Your task to perform on an android device: Show me productivity apps on the Play Store Image 0: 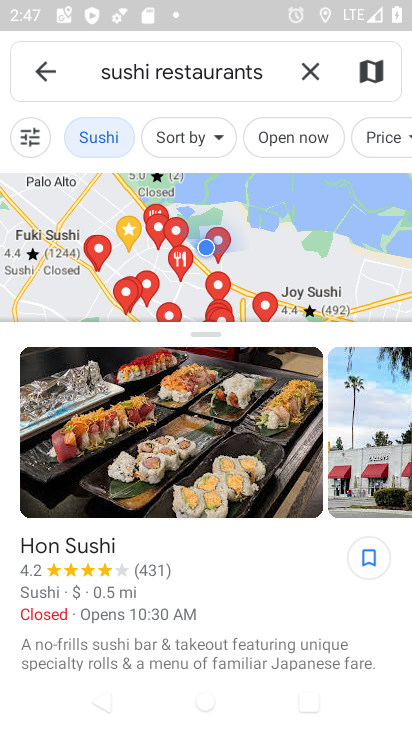
Step 0: press home button
Your task to perform on an android device: Show me productivity apps on the Play Store Image 1: 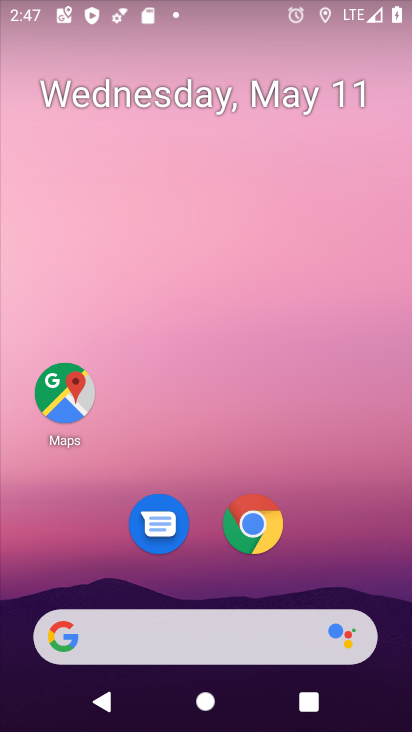
Step 1: drag from (336, 558) to (284, 52)
Your task to perform on an android device: Show me productivity apps on the Play Store Image 2: 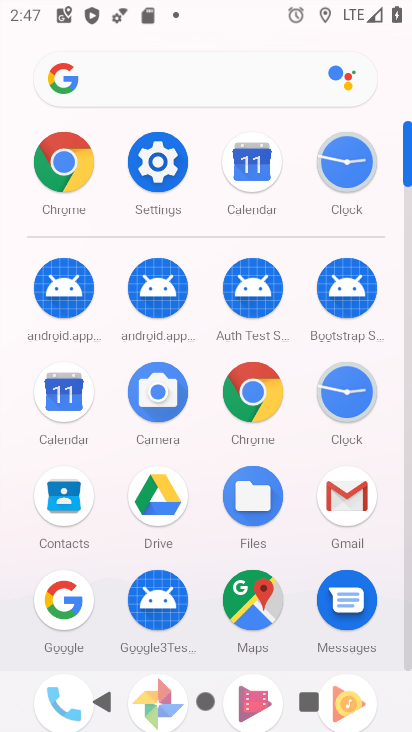
Step 2: drag from (196, 487) to (192, 87)
Your task to perform on an android device: Show me productivity apps on the Play Store Image 3: 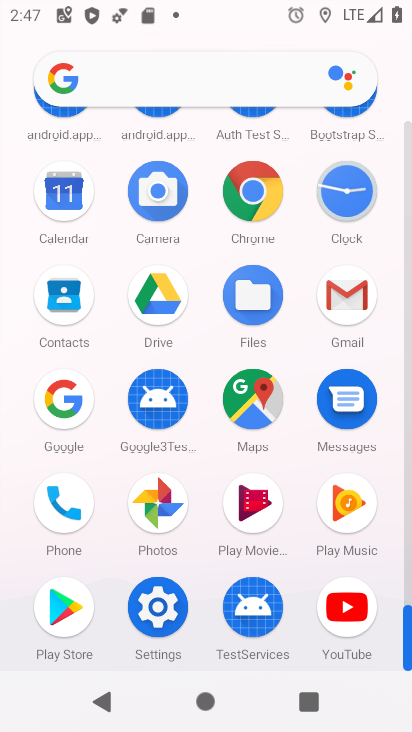
Step 3: click (66, 587)
Your task to perform on an android device: Show me productivity apps on the Play Store Image 4: 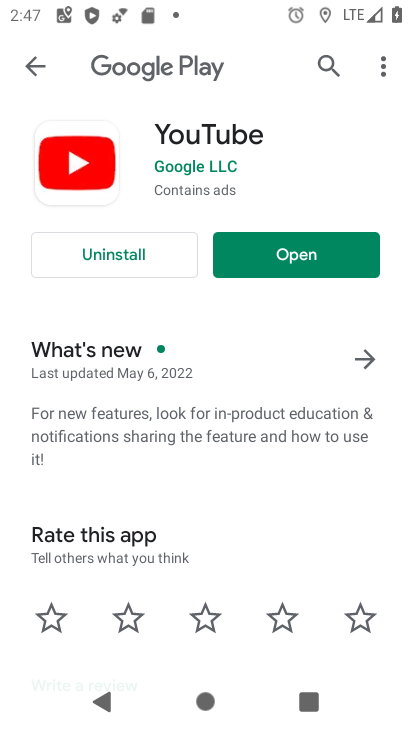
Step 4: click (46, 68)
Your task to perform on an android device: Show me productivity apps on the Play Store Image 5: 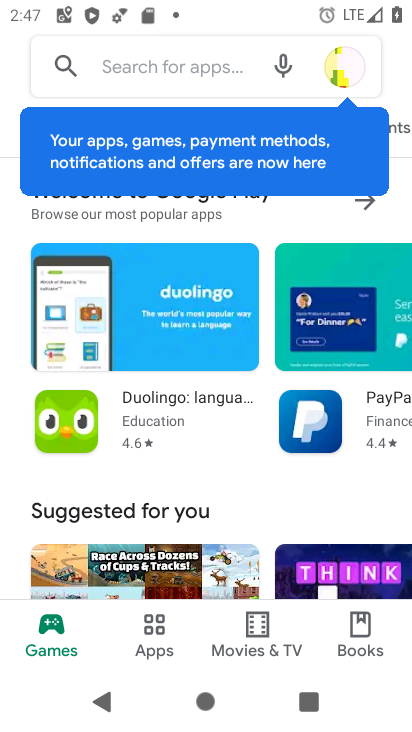
Step 5: click (166, 634)
Your task to perform on an android device: Show me productivity apps on the Play Store Image 6: 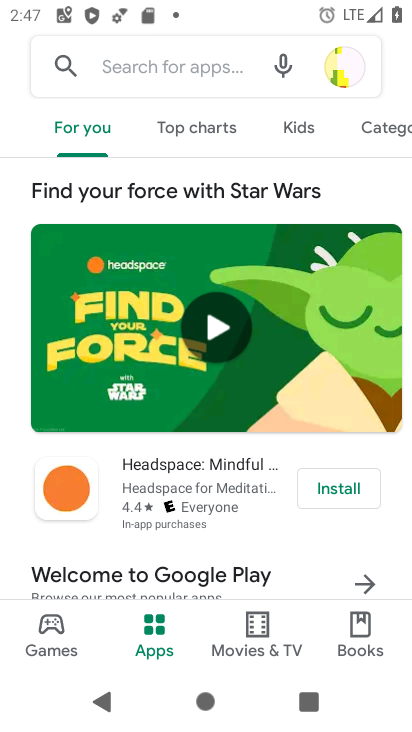
Step 6: click (381, 117)
Your task to perform on an android device: Show me productivity apps on the Play Store Image 7: 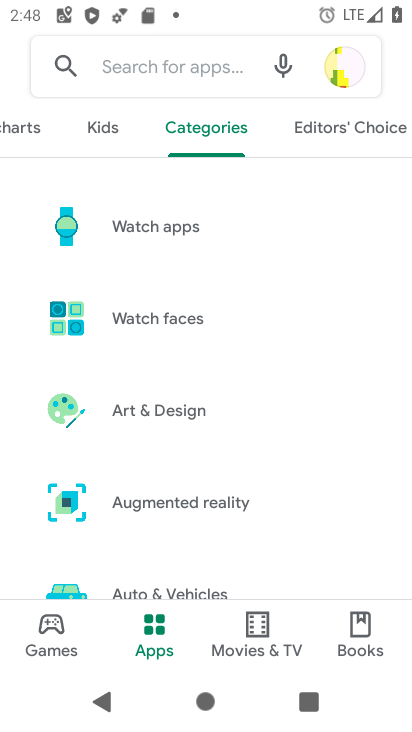
Step 7: drag from (214, 527) to (232, 0)
Your task to perform on an android device: Show me productivity apps on the Play Store Image 8: 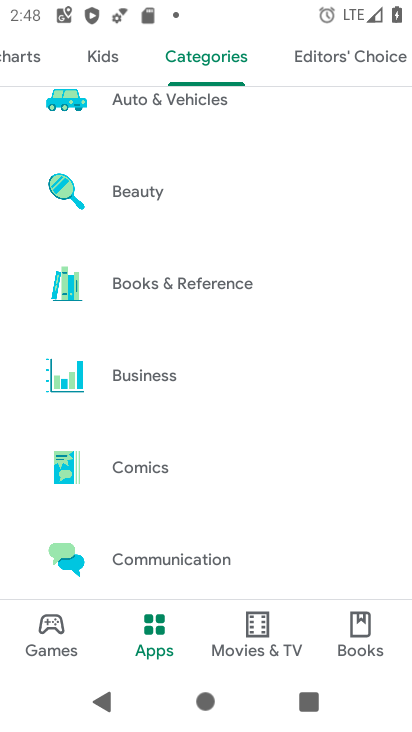
Step 8: drag from (264, 566) to (302, 1)
Your task to perform on an android device: Show me productivity apps on the Play Store Image 9: 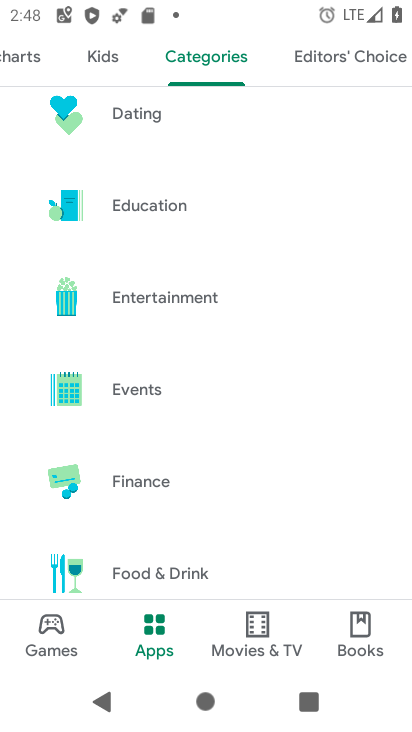
Step 9: drag from (244, 573) to (267, 0)
Your task to perform on an android device: Show me productivity apps on the Play Store Image 10: 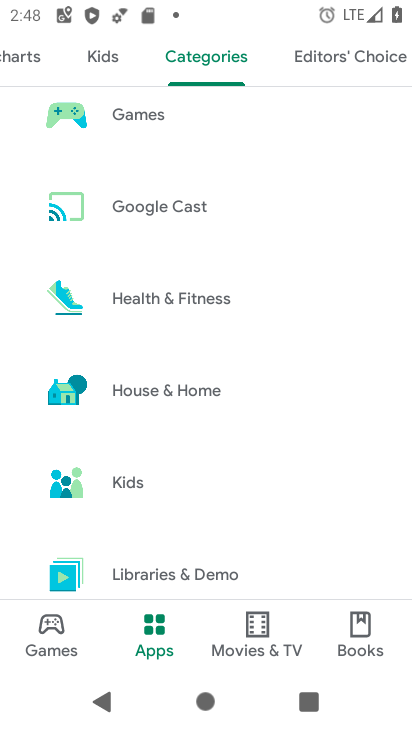
Step 10: drag from (263, 566) to (261, 20)
Your task to perform on an android device: Show me productivity apps on the Play Store Image 11: 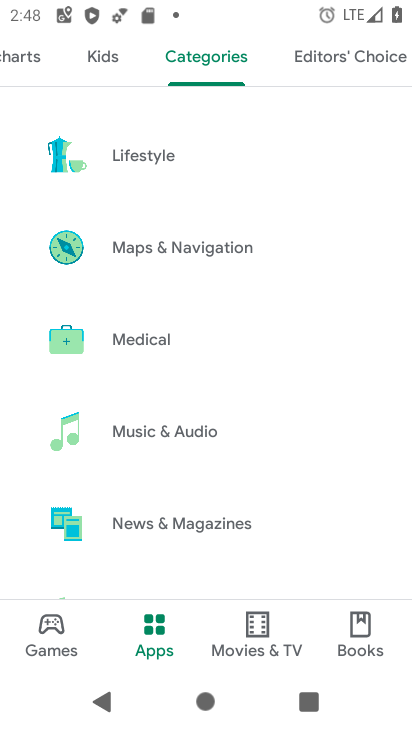
Step 11: drag from (286, 526) to (291, 1)
Your task to perform on an android device: Show me productivity apps on the Play Store Image 12: 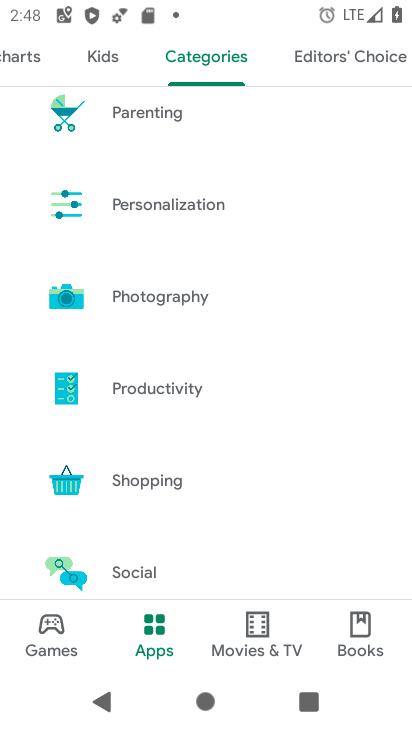
Step 12: drag from (228, 561) to (298, 0)
Your task to perform on an android device: Show me productivity apps on the Play Store Image 13: 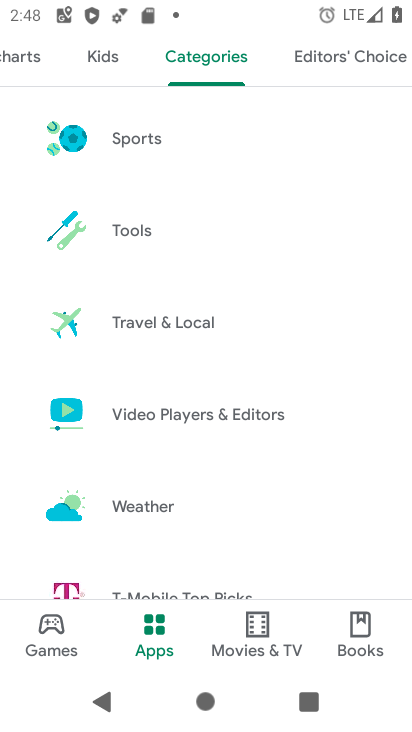
Step 13: drag from (235, 215) to (268, 617)
Your task to perform on an android device: Show me productivity apps on the Play Store Image 14: 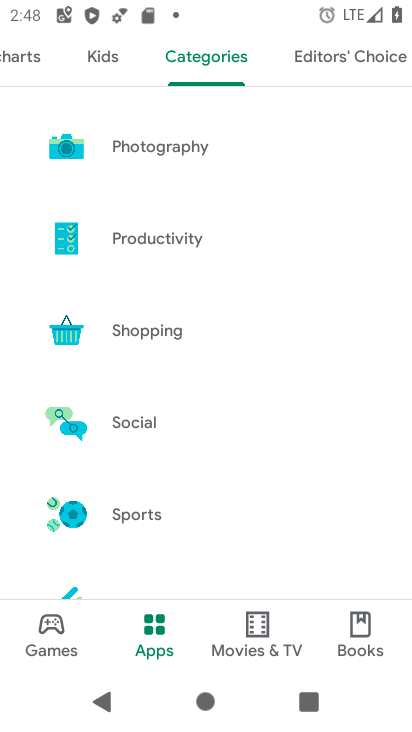
Step 14: click (175, 238)
Your task to perform on an android device: Show me productivity apps on the Play Store Image 15: 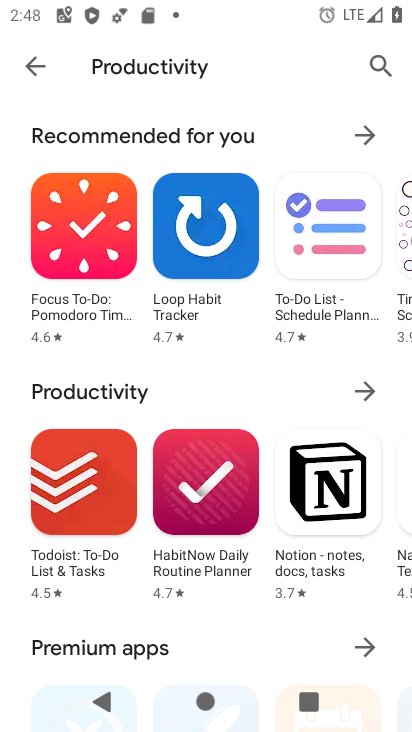
Step 15: task complete